Your task to perform on an android device: Open Google Image 0: 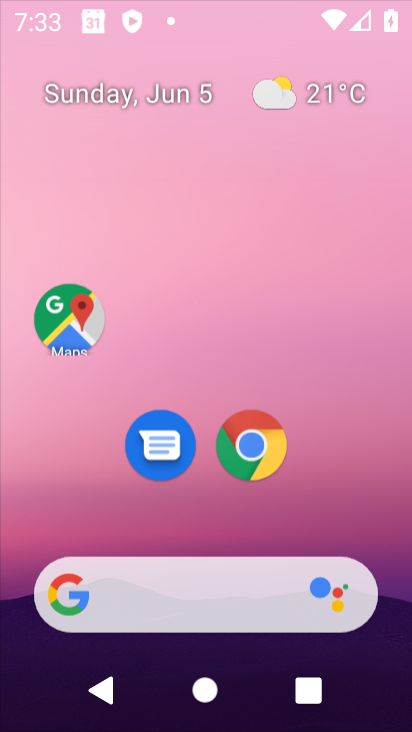
Step 0: drag from (311, 121) to (402, 69)
Your task to perform on an android device: Open Google Image 1: 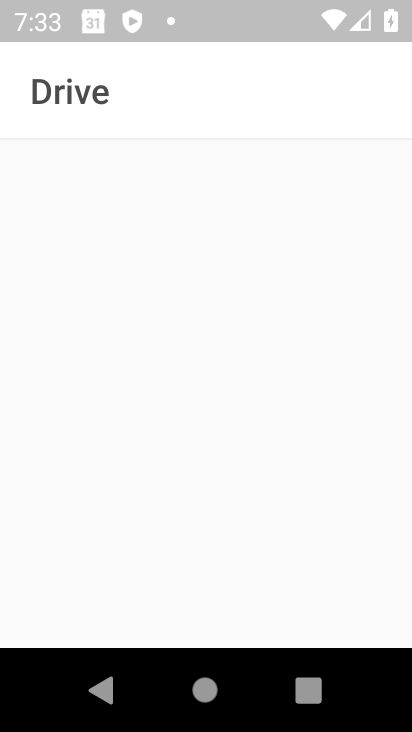
Step 1: press home button
Your task to perform on an android device: Open Google Image 2: 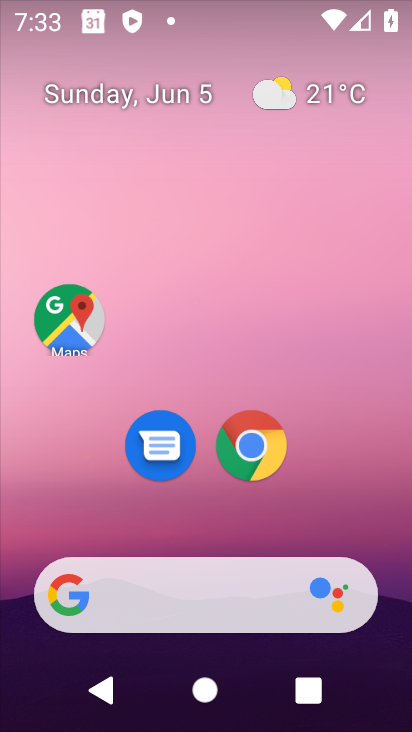
Step 2: drag from (362, 522) to (361, 7)
Your task to perform on an android device: Open Google Image 3: 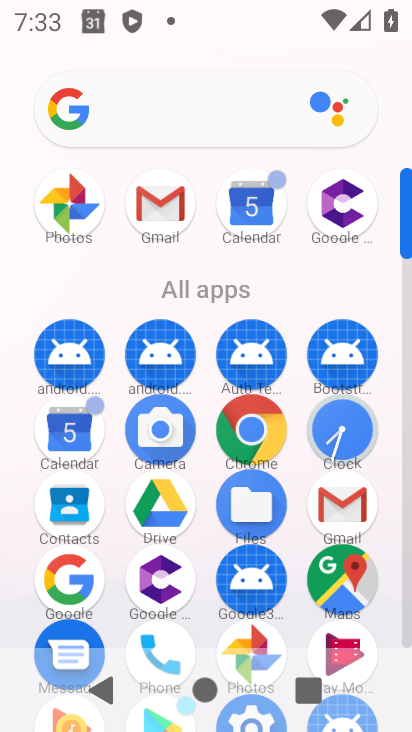
Step 3: click (63, 584)
Your task to perform on an android device: Open Google Image 4: 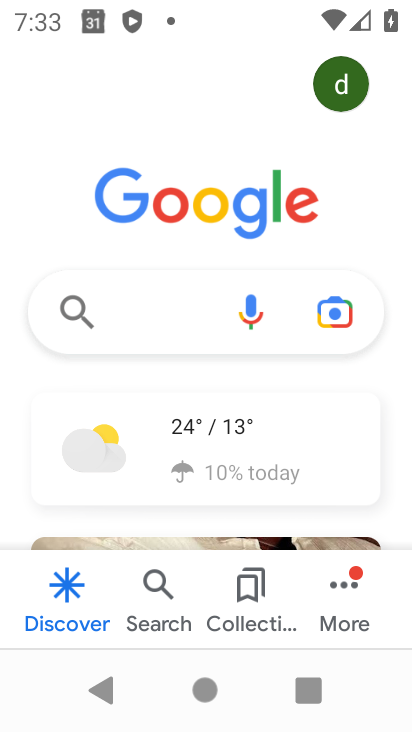
Step 4: task complete